Your task to perform on an android device: Open Reddit.com Image 0: 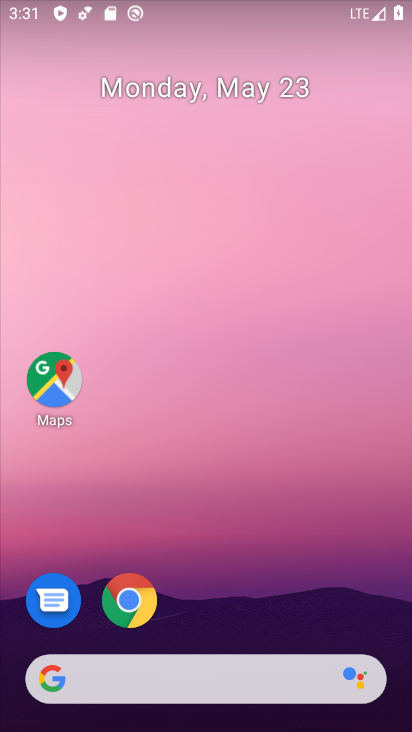
Step 0: click (132, 609)
Your task to perform on an android device: Open Reddit.com Image 1: 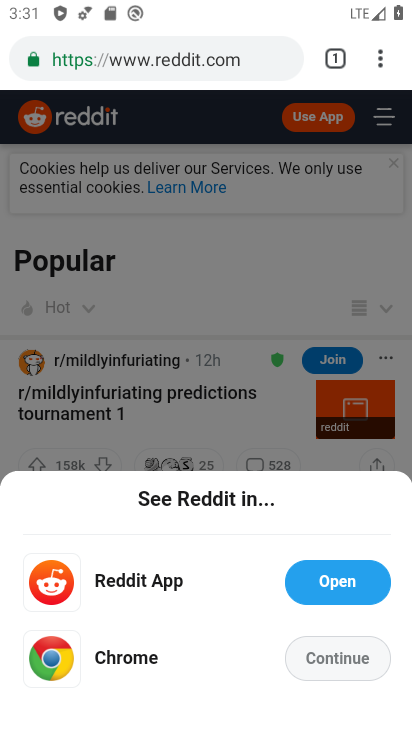
Step 1: task complete